Your task to perform on an android device: Open wifi settings Image 0: 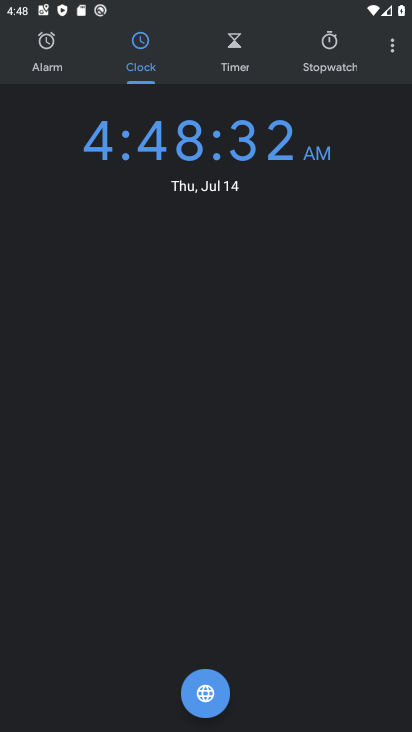
Step 0: press back button
Your task to perform on an android device: Open wifi settings Image 1: 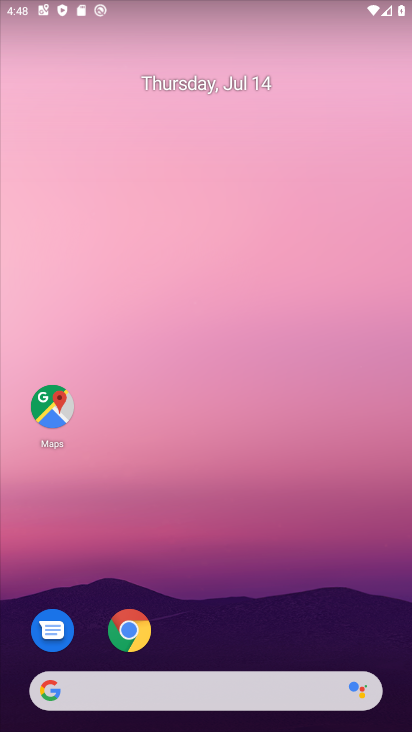
Step 1: drag from (92, 10) to (89, 492)
Your task to perform on an android device: Open wifi settings Image 2: 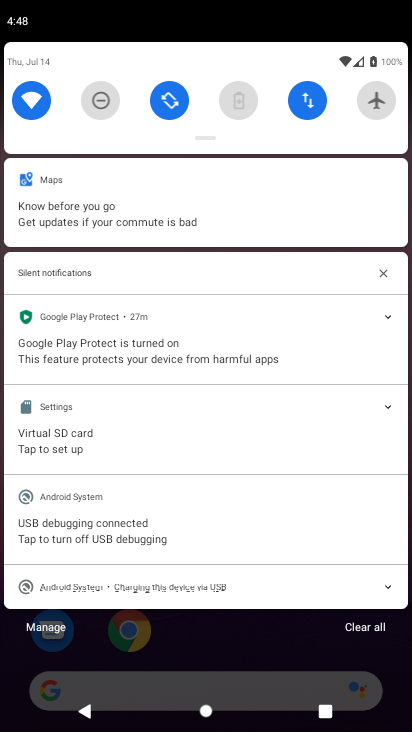
Step 2: click (26, 98)
Your task to perform on an android device: Open wifi settings Image 3: 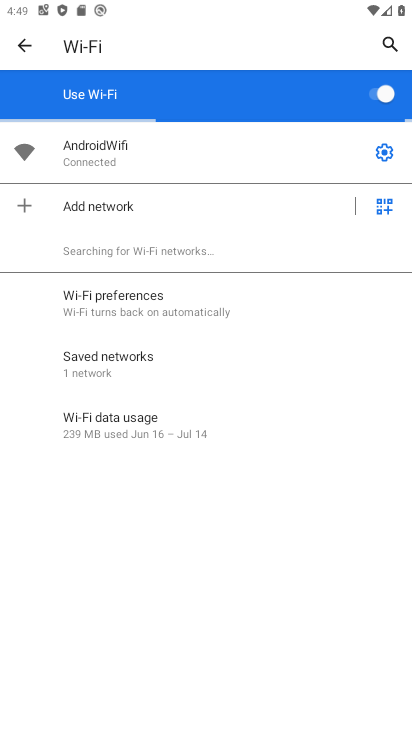
Step 3: task complete